Your task to perform on an android device: Find coffee shops on Maps Image 0: 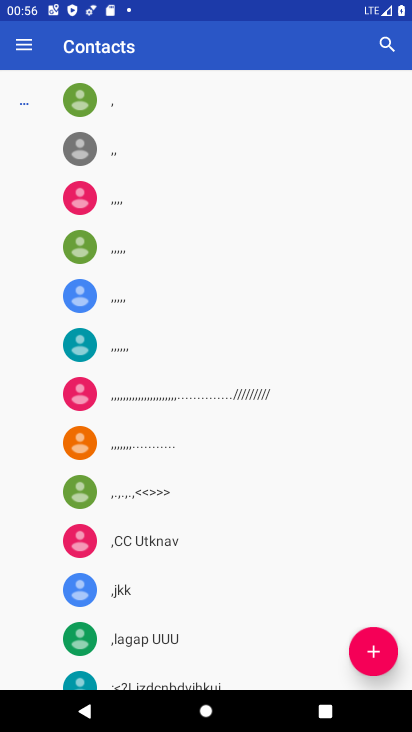
Step 0: press home button
Your task to perform on an android device: Find coffee shops on Maps Image 1: 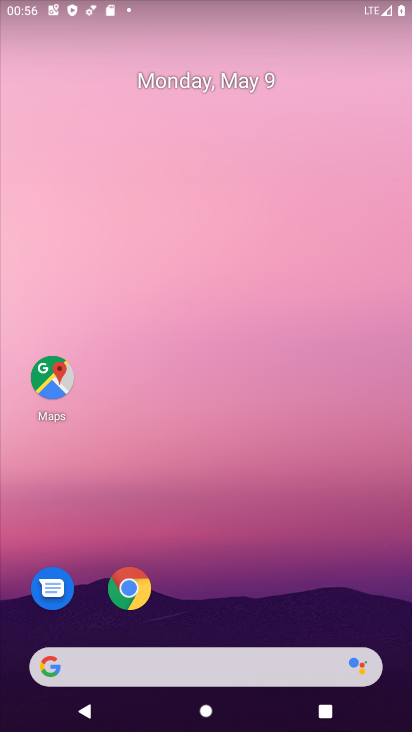
Step 1: click (44, 384)
Your task to perform on an android device: Find coffee shops on Maps Image 2: 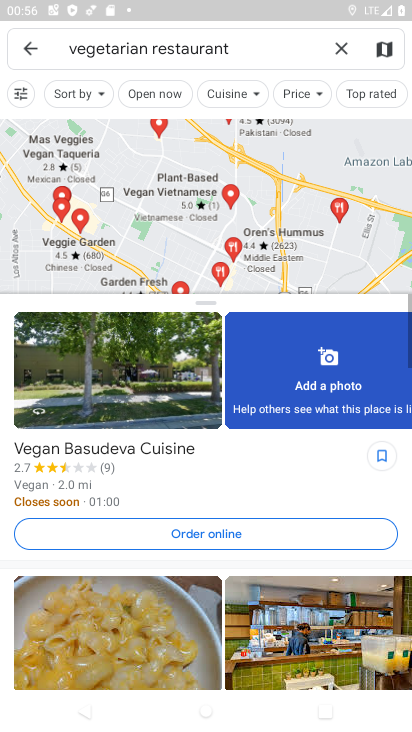
Step 2: click (337, 41)
Your task to perform on an android device: Find coffee shops on Maps Image 3: 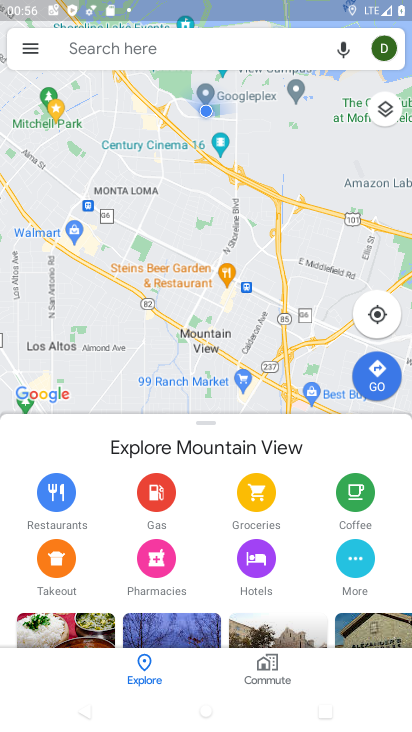
Step 3: click (208, 48)
Your task to perform on an android device: Find coffee shops on Maps Image 4: 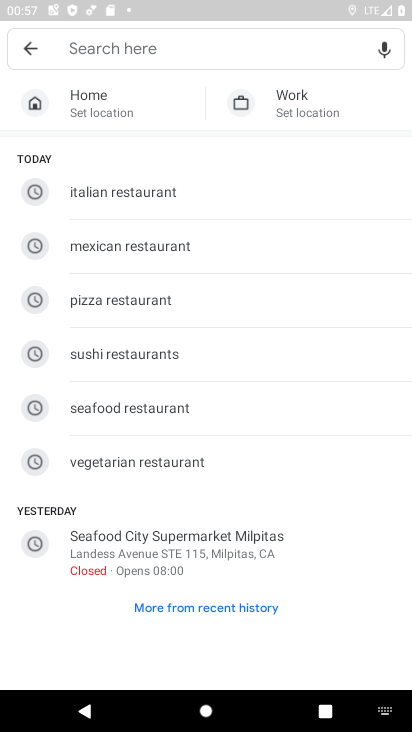
Step 4: type "coffee shops"
Your task to perform on an android device: Find coffee shops on Maps Image 5: 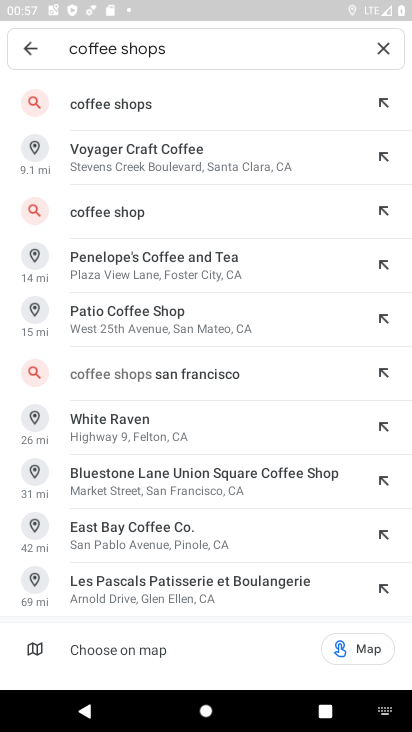
Step 5: click (123, 102)
Your task to perform on an android device: Find coffee shops on Maps Image 6: 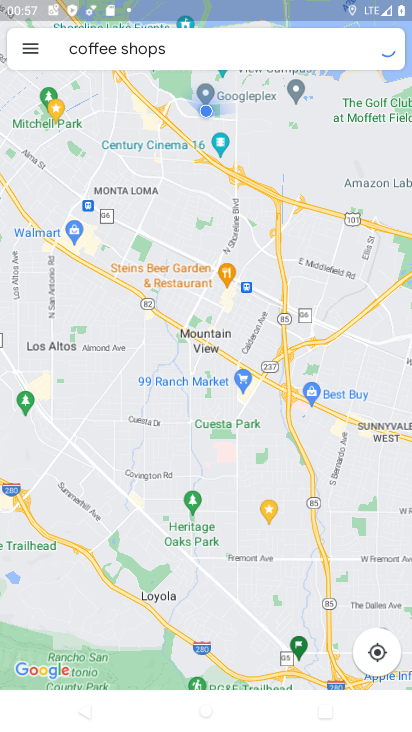
Step 6: click (123, 102)
Your task to perform on an android device: Find coffee shops on Maps Image 7: 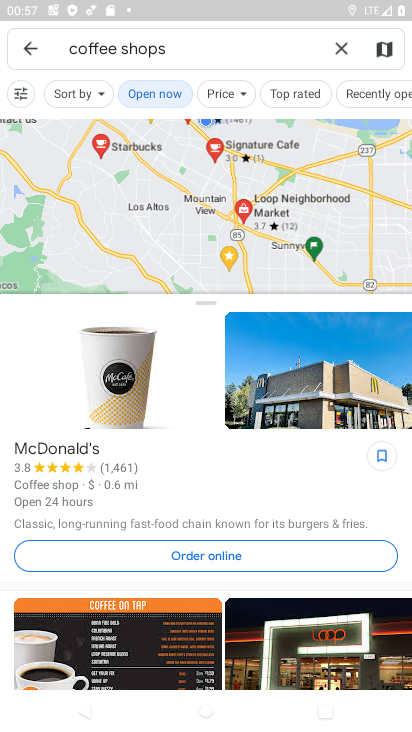
Step 7: task complete